Your task to perform on an android device: What's on my calendar today? Image 0: 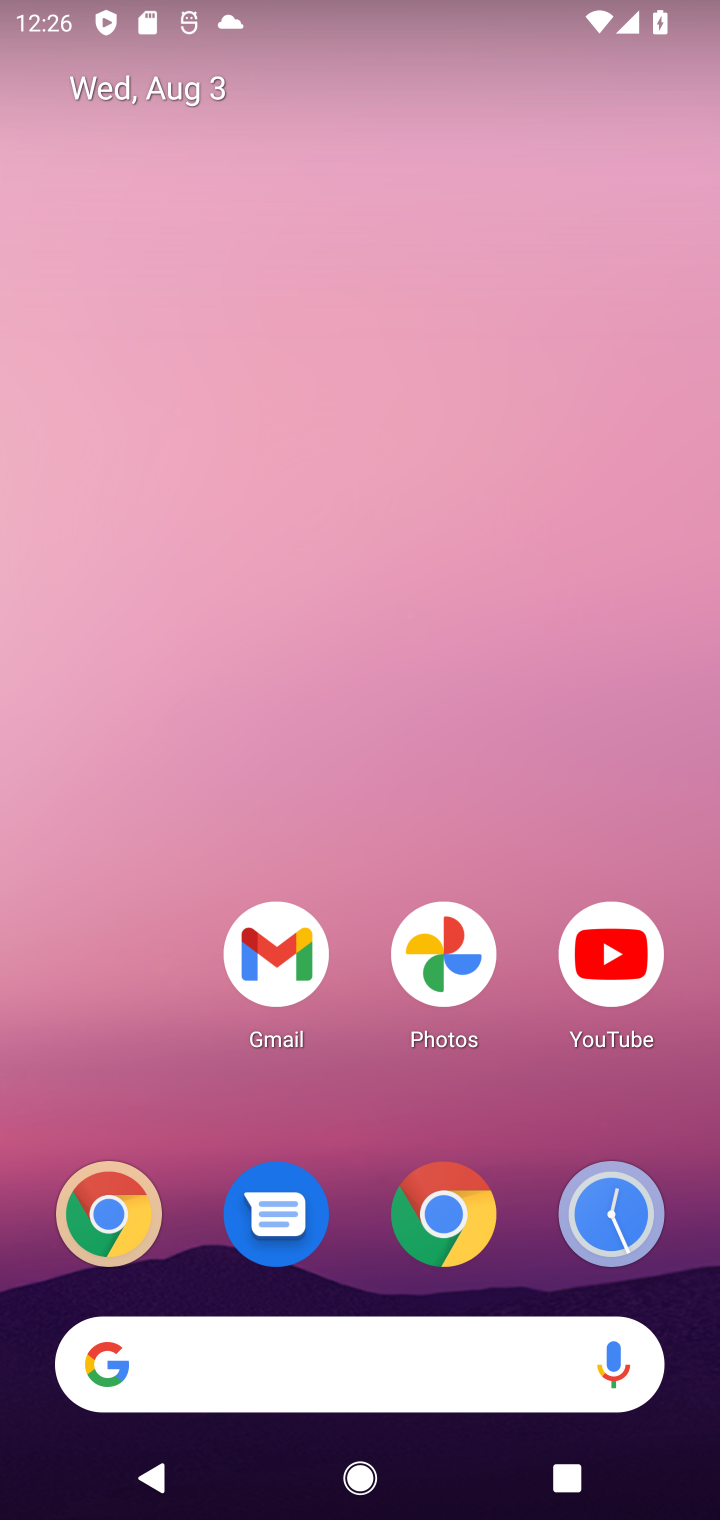
Step 0: drag from (188, 621) to (302, 0)
Your task to perform on an android device: What's on my calendar today? Image 1: 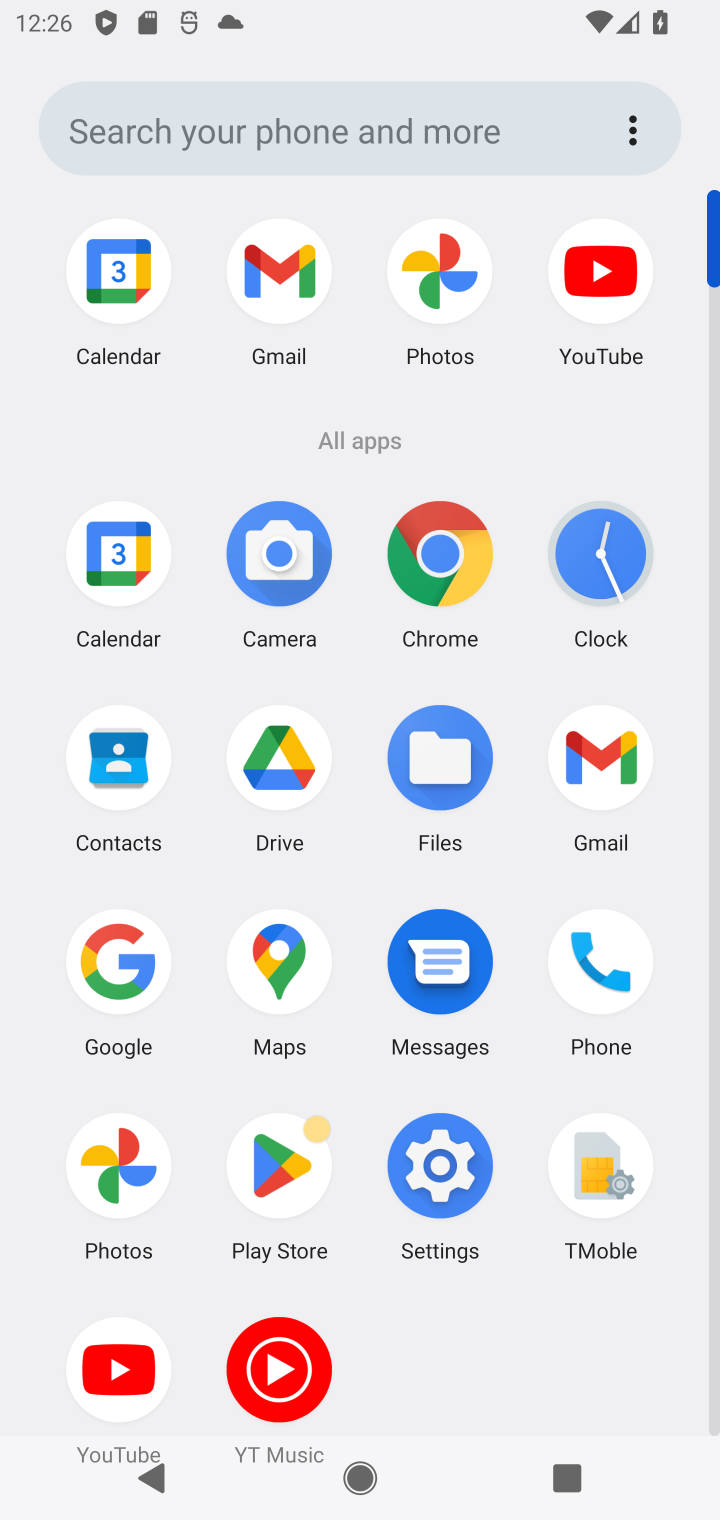
Step 1: click (107, 550)
Your task to perform on an android device: What's on my calendar today? Image 2: 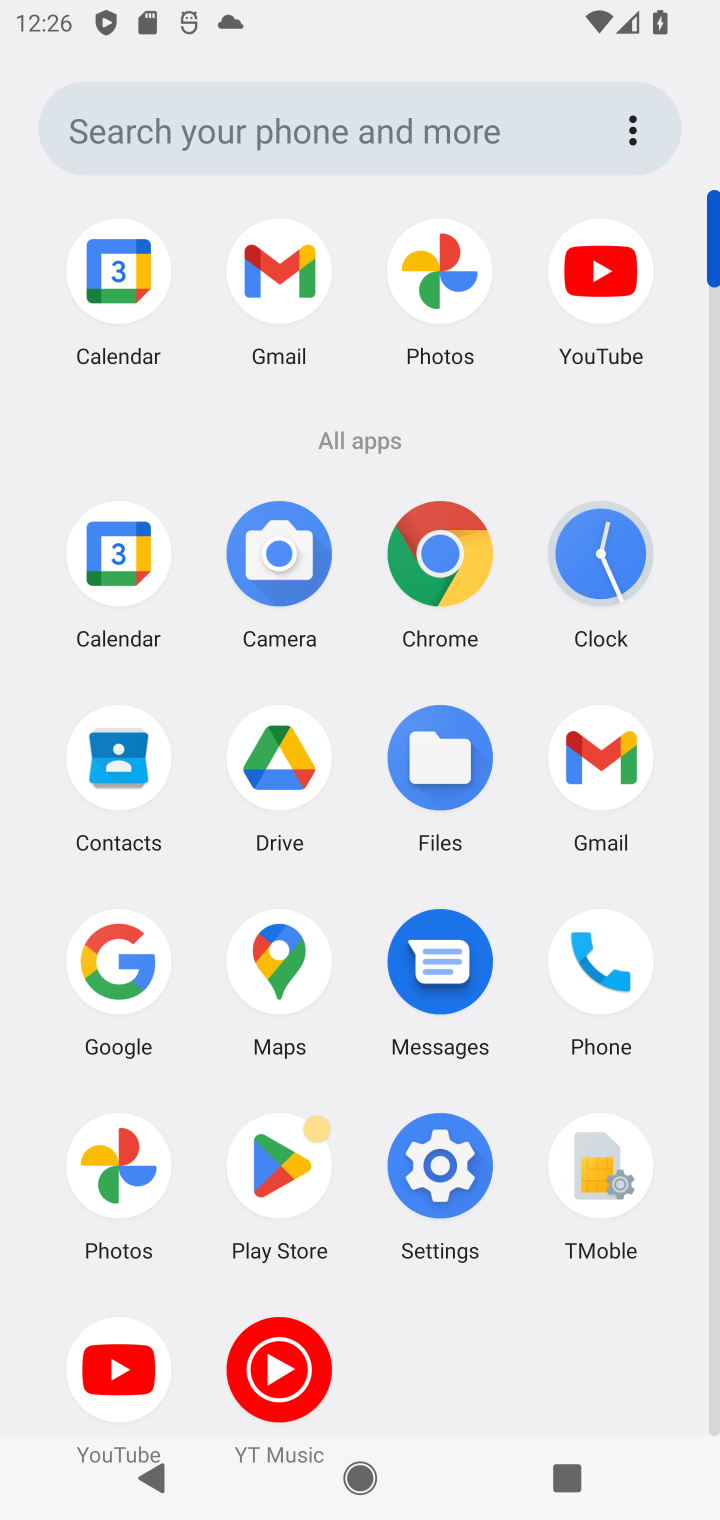
Step 2: click (107, 550)
Your task to perform on an android device: What's on my calendar today? Image 3: 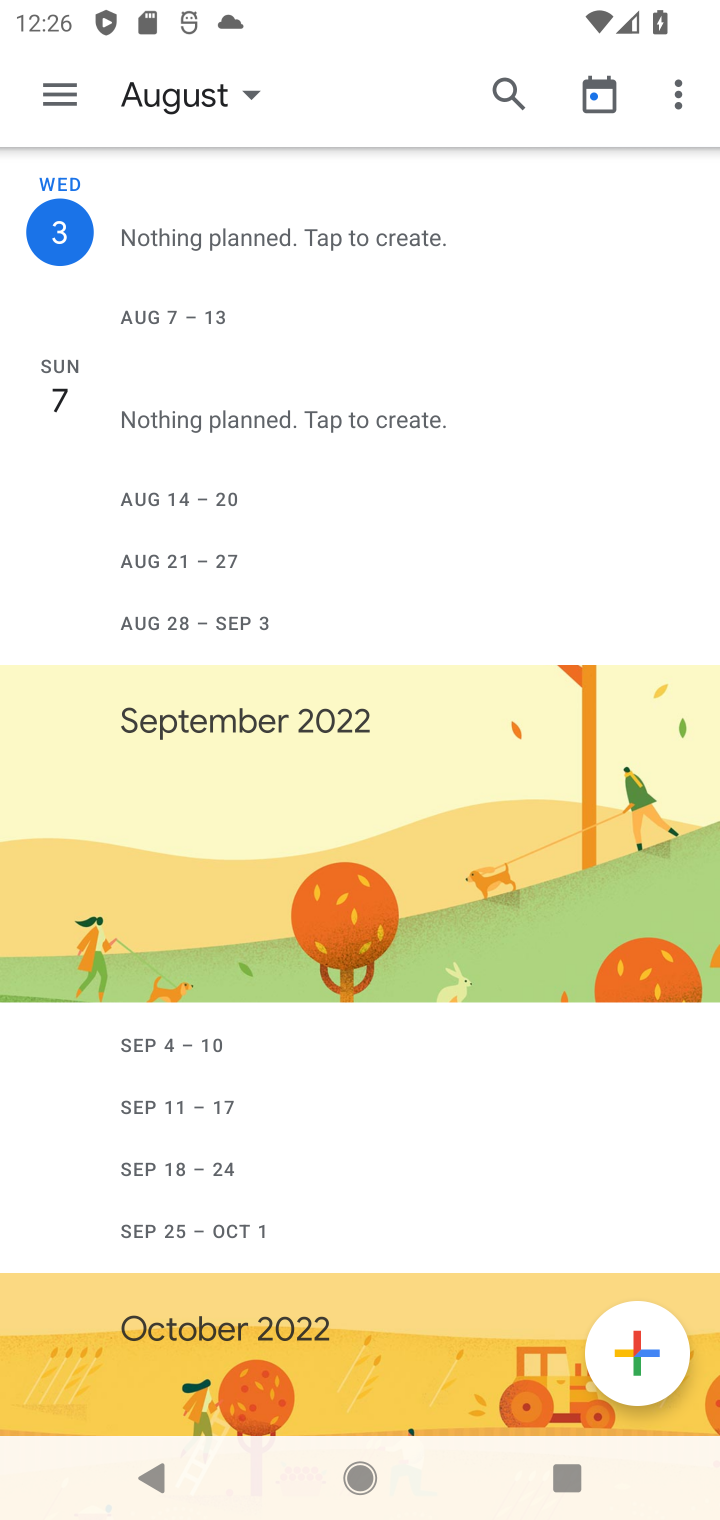
Step 3: click (141, 107)
Your task to perform on an android device: What's on my calendar today? Image 4: 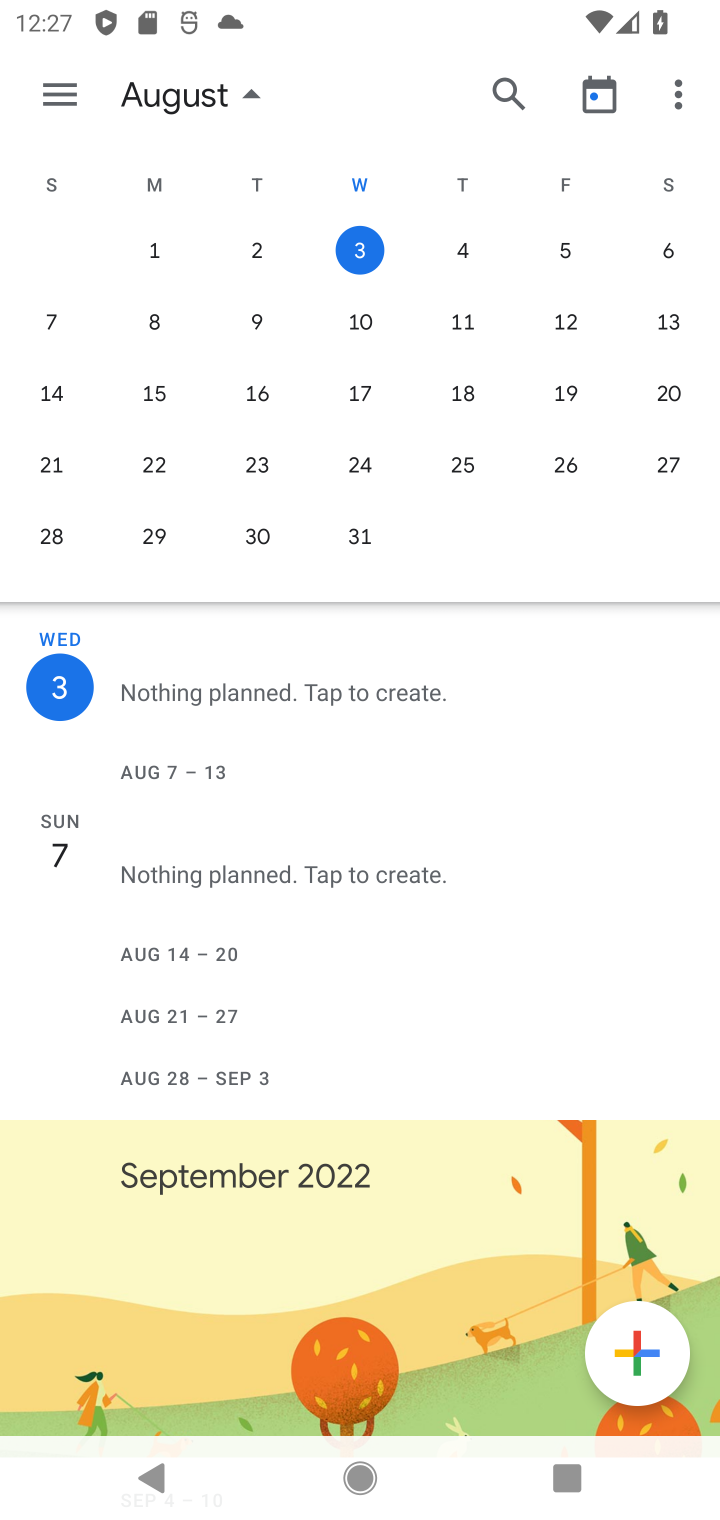
Step 4: task complete